Your task to perform on an android device: Open accessibility settings Image 0: 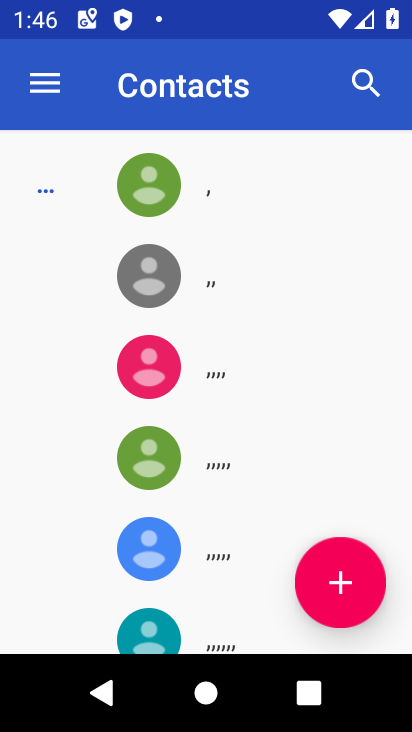
Step 0: press home button
Your task to perform on an android device: Open accessibility settings Image 1: 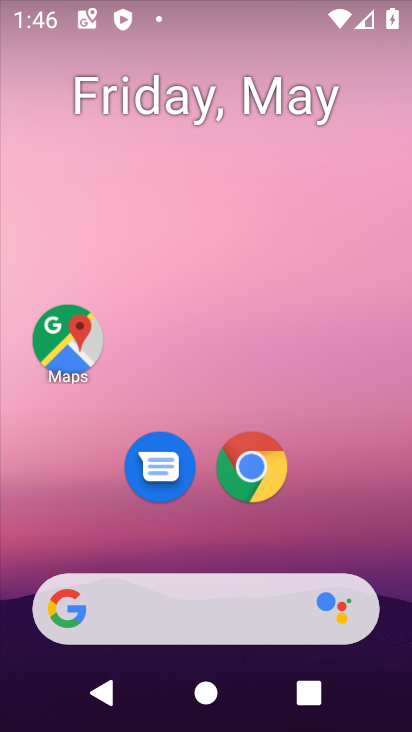
Step 1: drag from (342, 528) to (275, 110)
Your task to perform on an android device: Open accessibility settings Image 2: 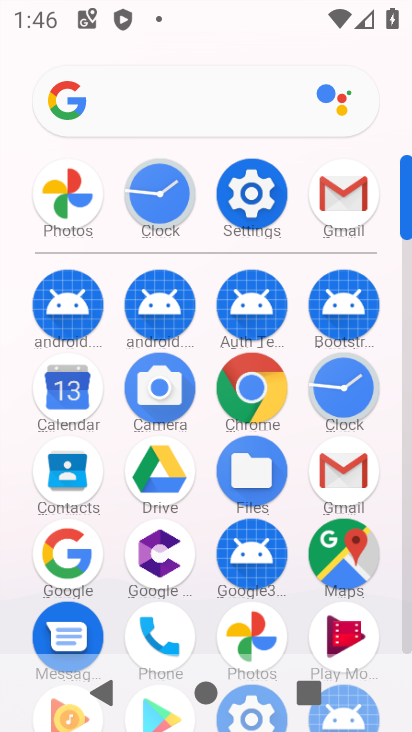
Step 2: click (248, 192)
Your task to perform on an android device: Open accessibility settings Image 3: 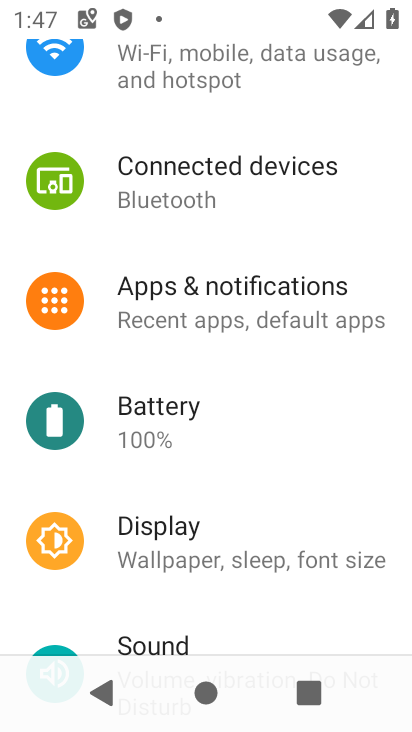
Step 3: drag from (229, 246) to (292, 412)
Your task to perform on an android device: Open accessibility settings Image 4: 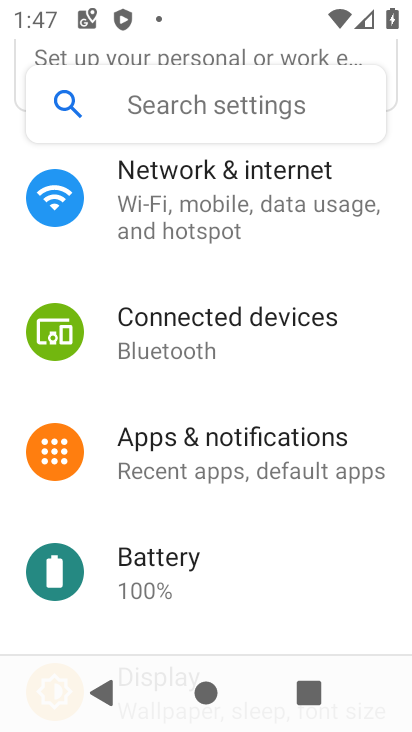
Step 4: drag from (273, 238) to (304, 432)
Your task to perform on an android device: Open accessibility settings Image 5: 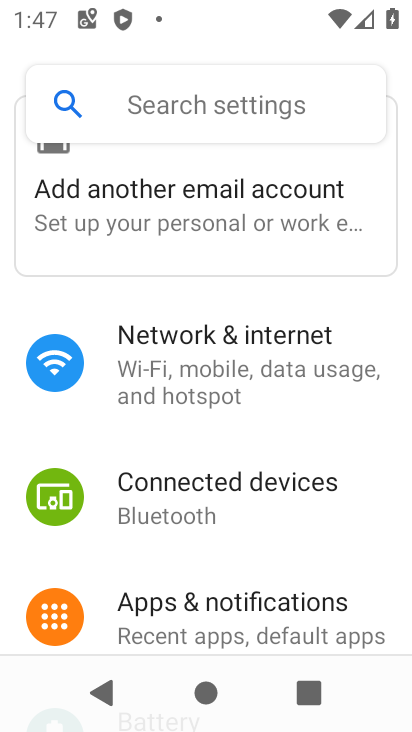
Step 5: drag from (229, 463) to (260, 338)
Your task to perform on an android device: Open accessibility settings Image 6: 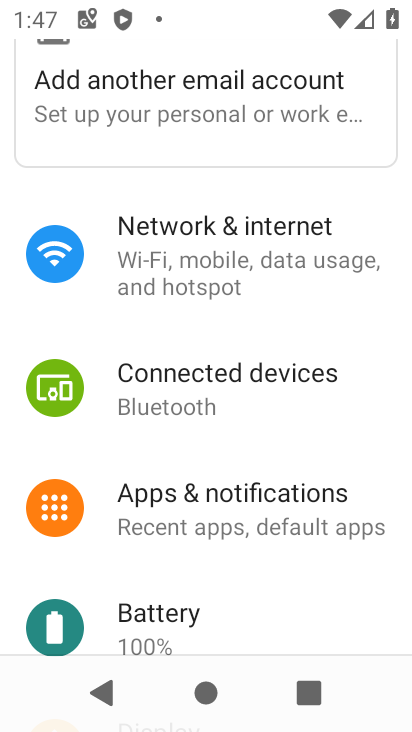
Step 6: drag from (257, 568) to (242, 382)
Your task to perform on an android device: Open accessibility settings Image 7: 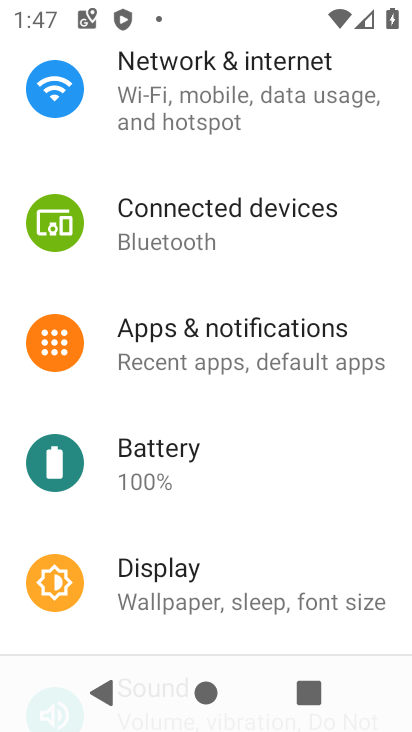
Step 7: drag from (233, 578) to (281, 409)
Your task to perform on an android device: Open accessibility settings Image 8: 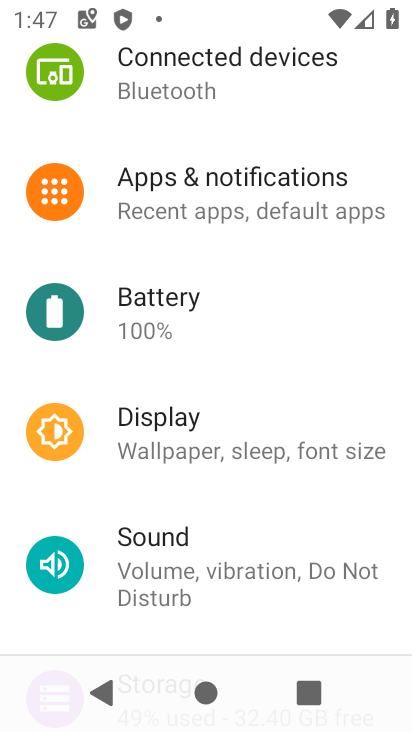
Step 8: drag from (240, 521) to (298, 332)
Your task to perform on an android device: Open accessibility settings Image 9: 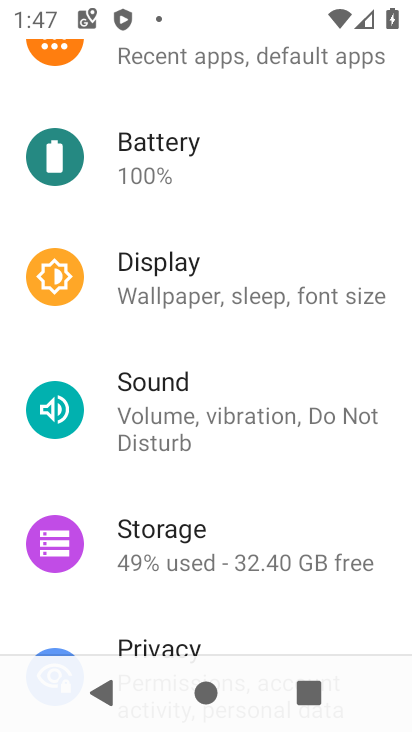
Step 9: drag from (171, 510) to (243, 349)
Your task to perform on an android device: Open accessibility settings Image 10: 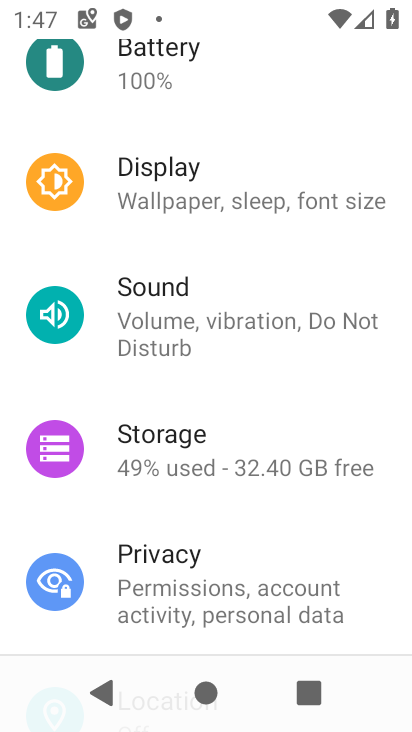
Step 10: drag from (208, 540) to (274, 371)
Your task to perform on an android device: Open accessibility settings Image 11: 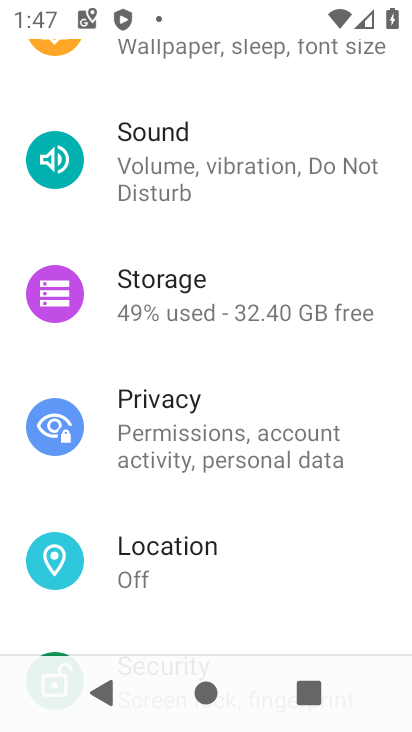
Step 11: drag from (245, 536) to (306, 408)
Your task to perform on an android device: Open accessibility settings Image 12: 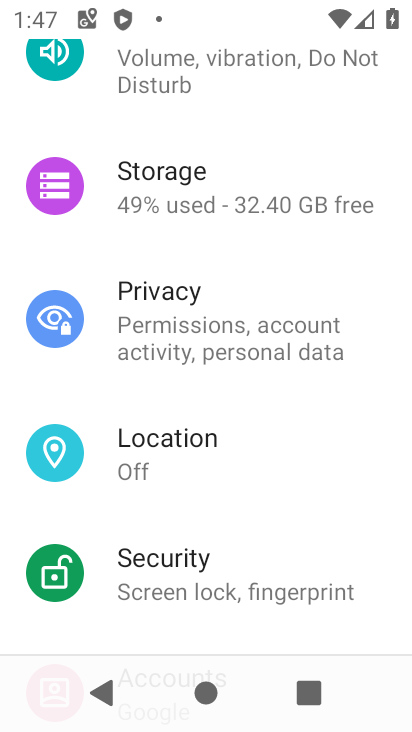
Step 12: drag from (249, 571) to (316, 413)
Your task to perform on an android device: Open accessibility settings Image 13: 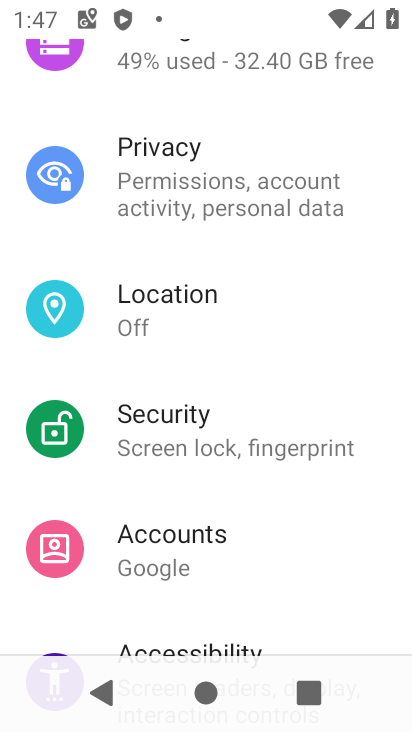
Step 13: drag from (251, 576) to (269, 353)
Your task to perform on an android device: Open accessibility settings Image 14: 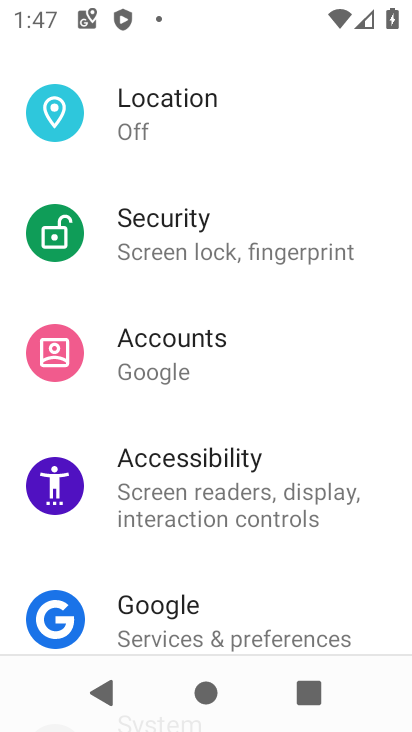
Step 14: click (188, 460)
Your task to perform on an android device: Open accessibility settings Image 15: 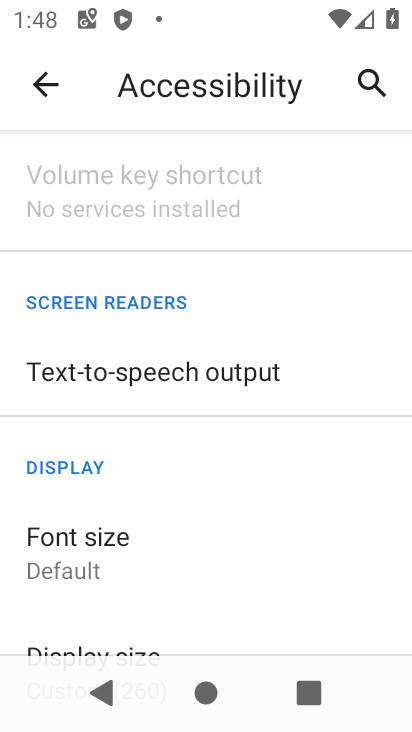
Step 15: task complete